Your task to perform on an android device: Go to settings Image 0: 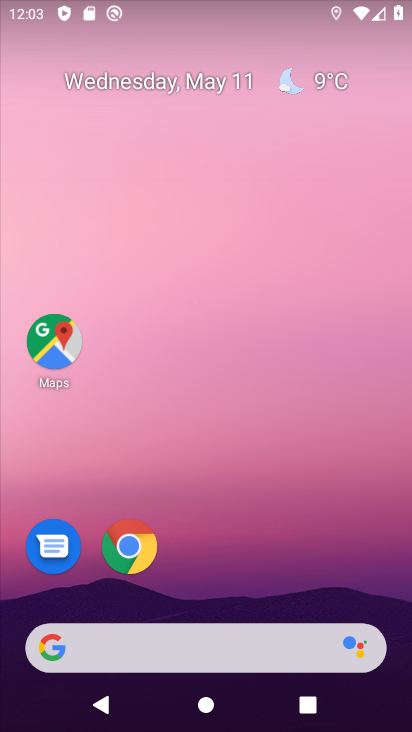
Step 0: drag from (172, 658) to (297, 97)
Your task to perform on an android device: Go to settings Image 1: 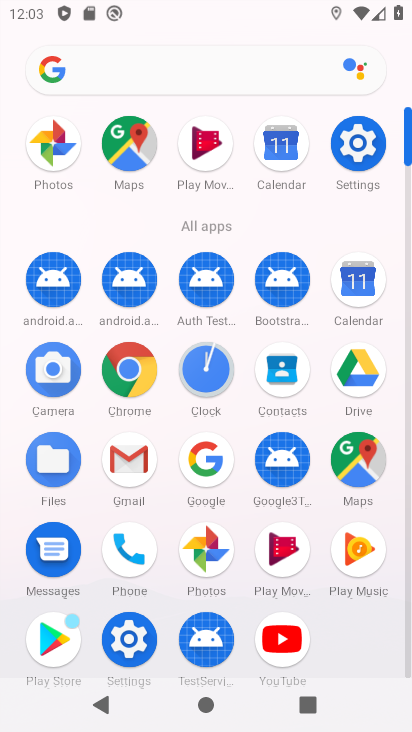
Step 1: click (352, 161)
Your task to perform on an android device: Go to settings Image 2: 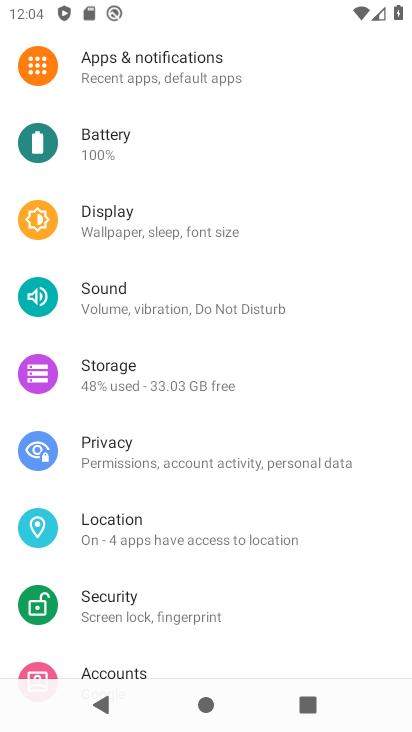
Step 2: task complete